Your task to perform on an android device: Clear the shopping cart on target.com. Search for asus rog on target.com, select the first entry, add it to the cart, then select checkout. Image 0: 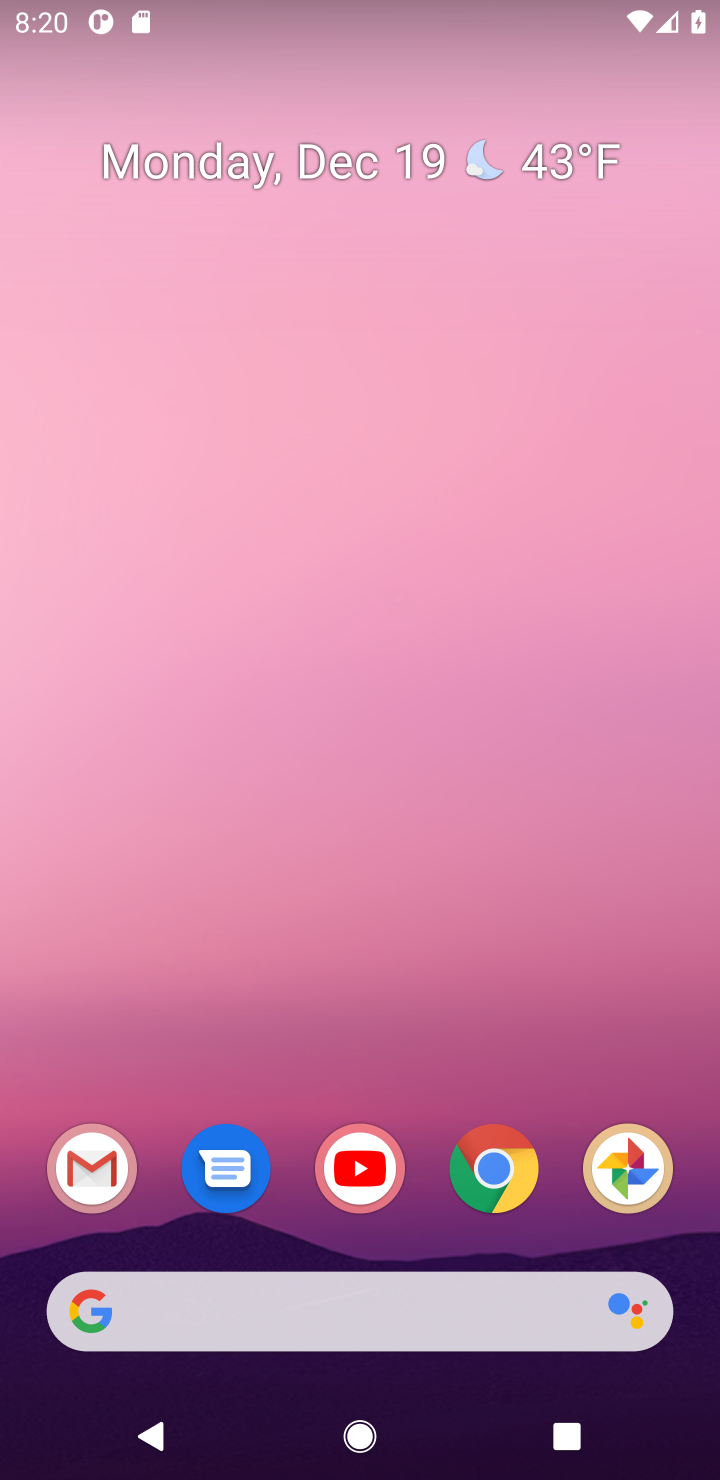
Step 0: click (494, 1181)
Your task to perform on an android device: Clear the shopping cart on target.com. Search for asus rog on target.com, select the first entry, add it to the cart, then select checkout. Image 1: 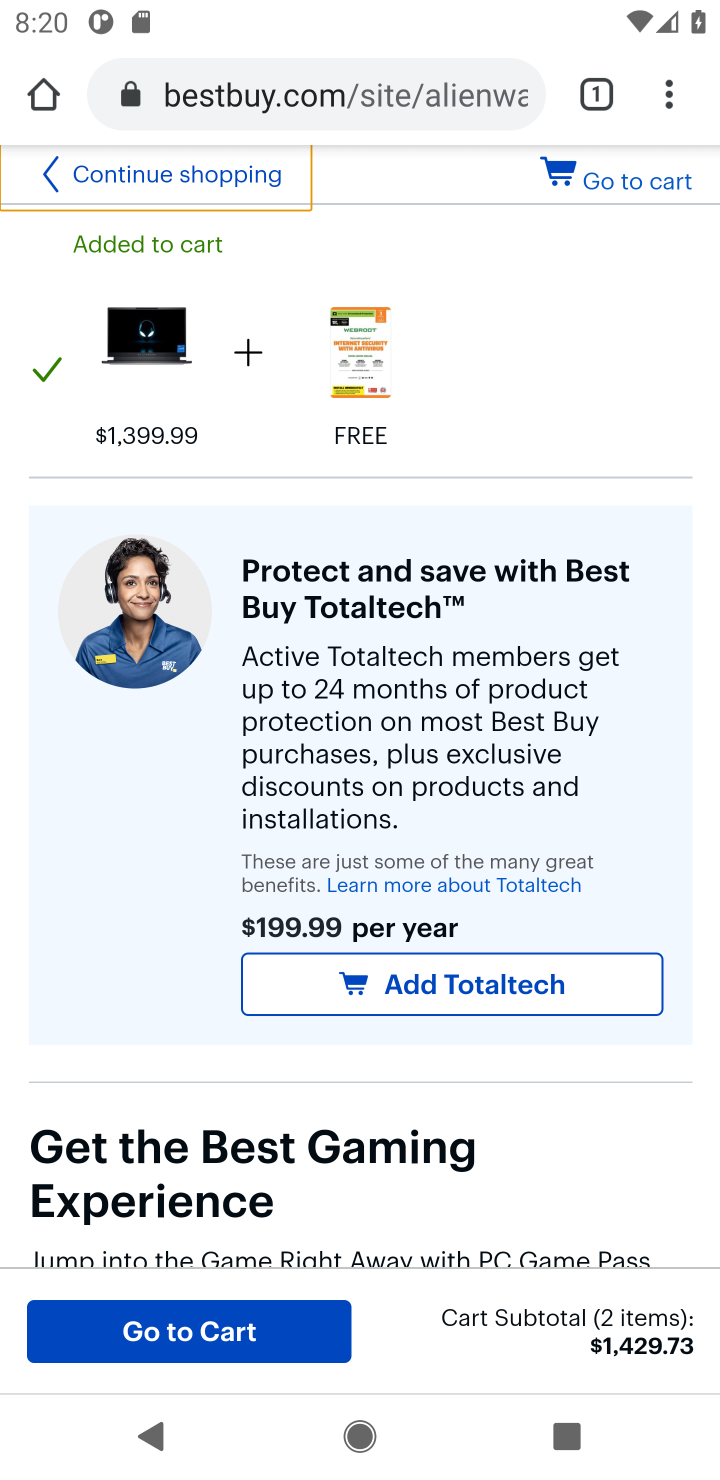
Step 1: click (263, 89)
Your task to perform on an android device: Clear the shopping cart on target.com. Search for asus rog on target.com, select the first entry, add it to the cart, then select checkout. Image 2: 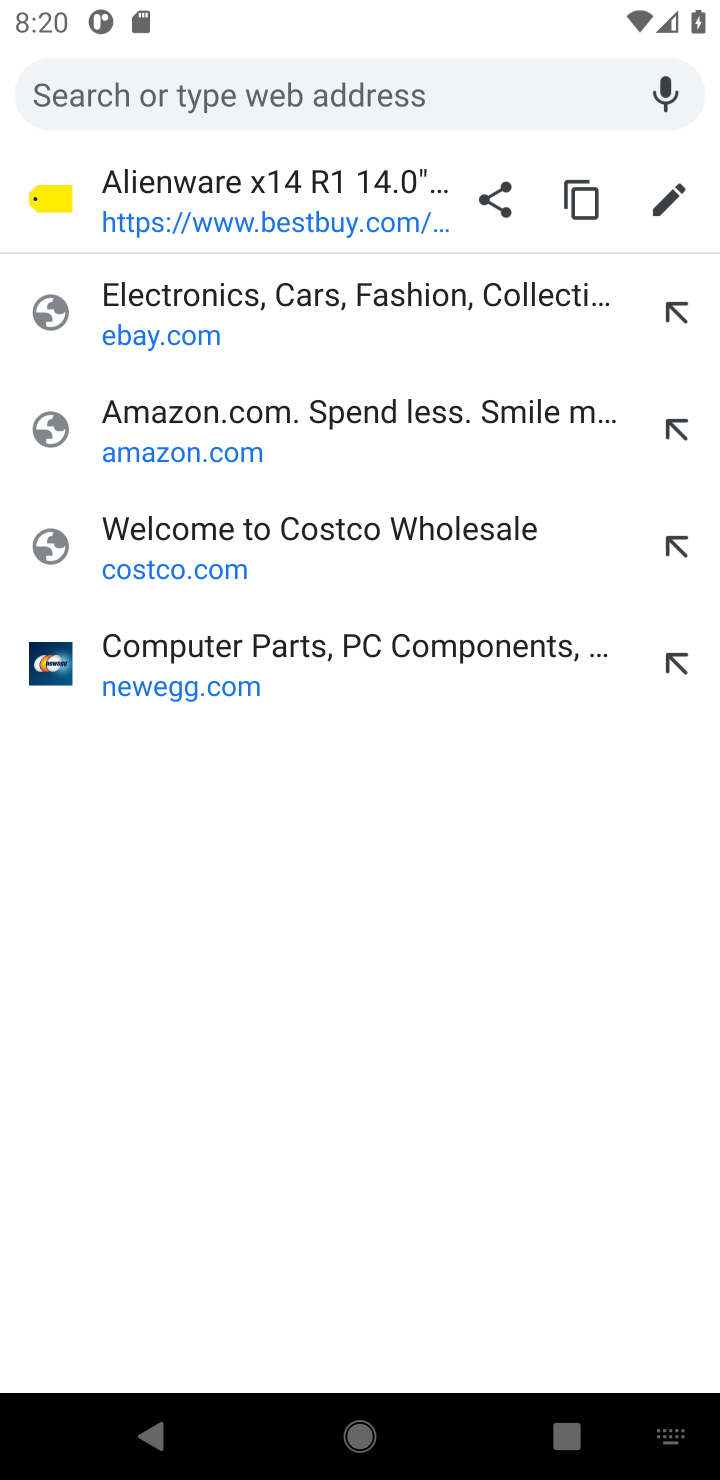
Step 2: type "target.com"
Your task to perform on an android device: Clear the shopping cart on target.com. Search for asus rog on target.com, select the first entry, add it to the cart, then select checkout. Image 3: 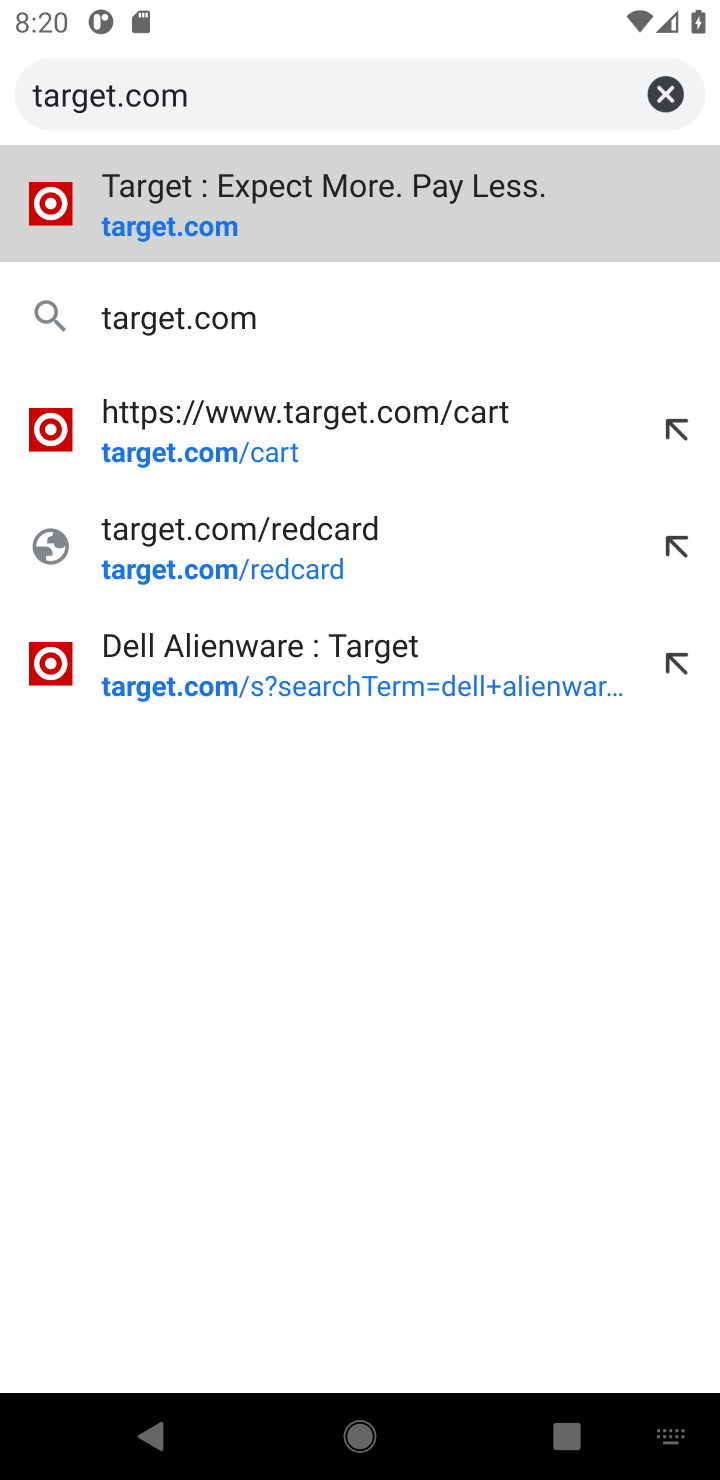
Step 3: click (180, 233)
Your task to perform on an android device: Clear the shopping cart on target.com. Search for asus rog on target.com, select the first entry, add it to the cart, then select checkout. Image 4: 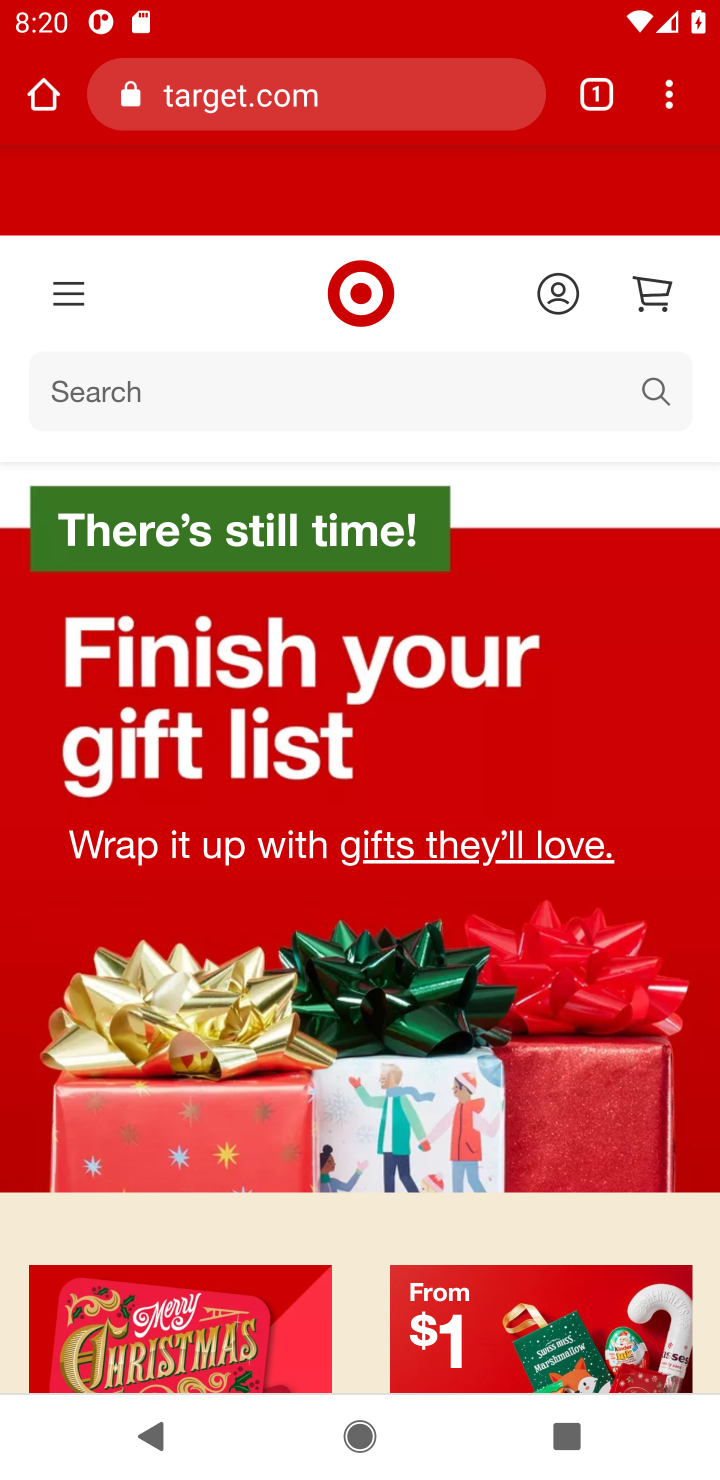
Step 4: click (643, 298)
Your task to perform on an android device: Clear the shopping cart on target.com. Search for asus rog on target.com, select the first entry, add it to the cart, then select checkout. Image 5: 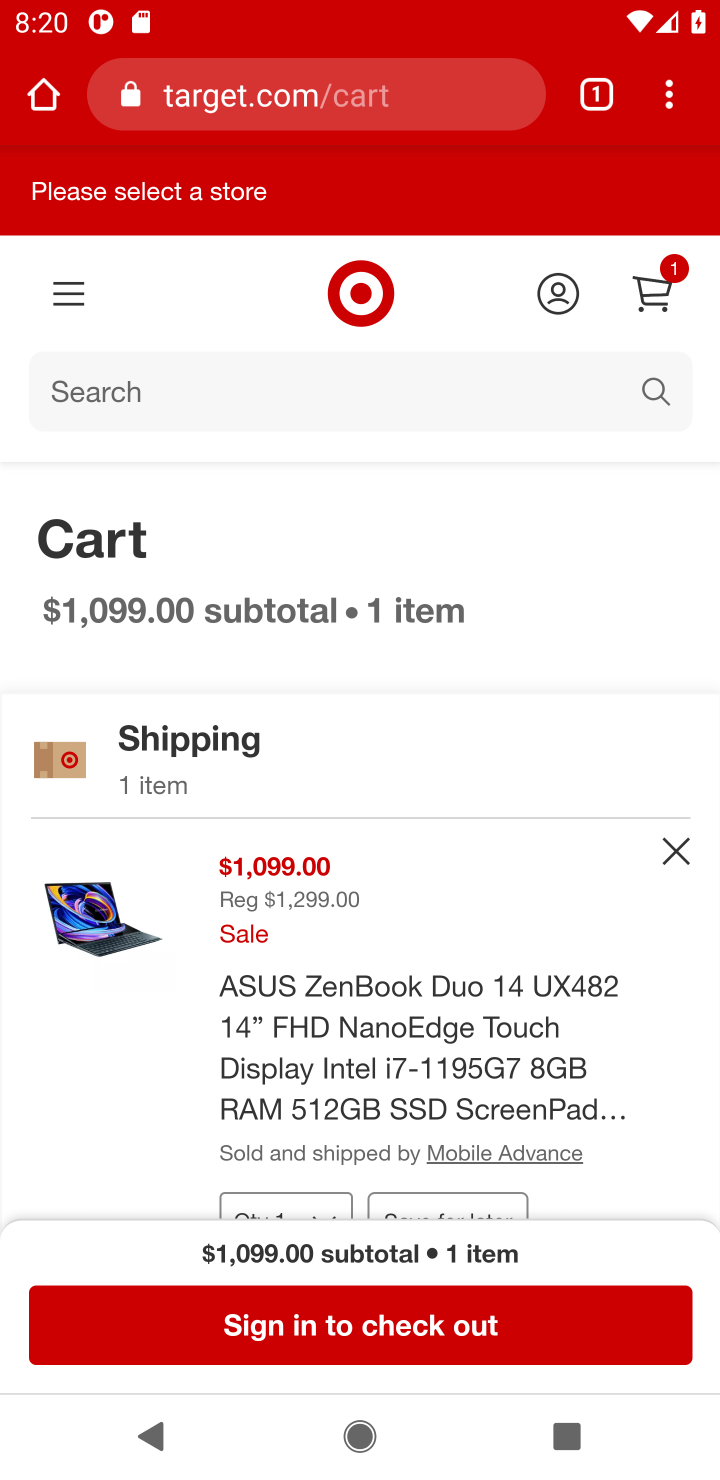
Step 5: click (677, 856)
Your task to perform on an android device: Clear the shopping cart on target.com. Search for asus rog on target.com, select the first entry, add it to the cart, then select checkout. Image 6: 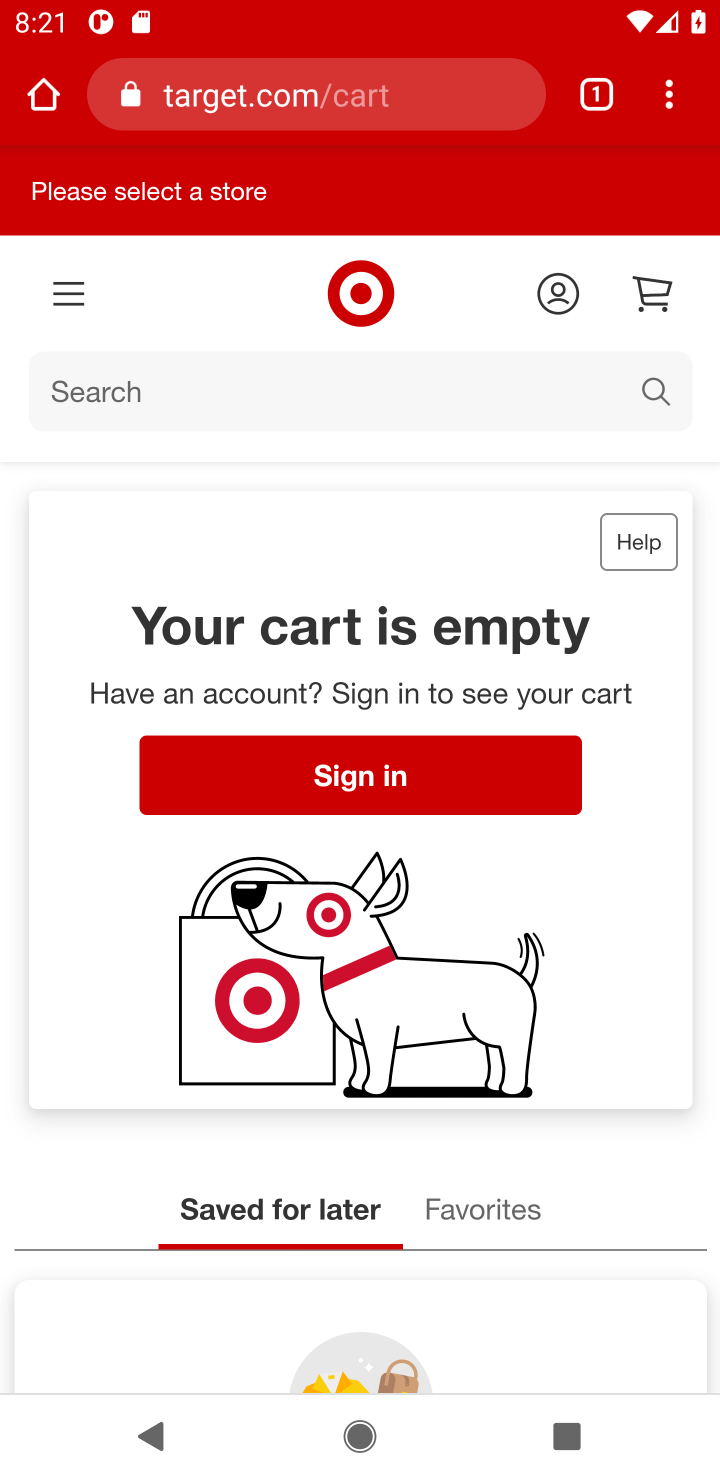
Step 6: click (79, 392)
Your task to perform on an android device: Clear the shopping cart on target.com. Search for asus rog on target.com, select the first entry, add it to the cart, then select checkout. Image 7: 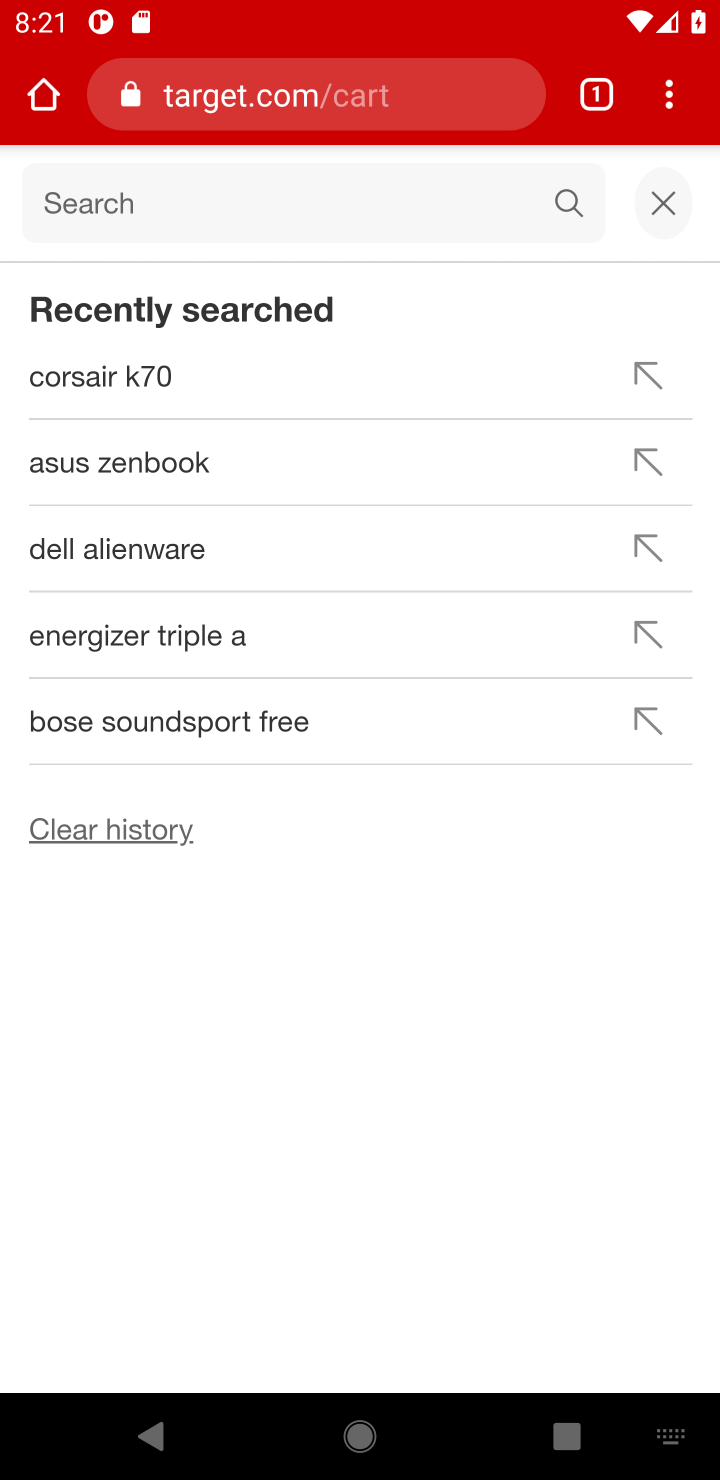
Step 7: type "asus rog"
Your task to perform on an android device: Clear the shopping cart on target.com. Search for asus rog on target.com, select the first entry, add it to the cart, then select checkout. Image 8: 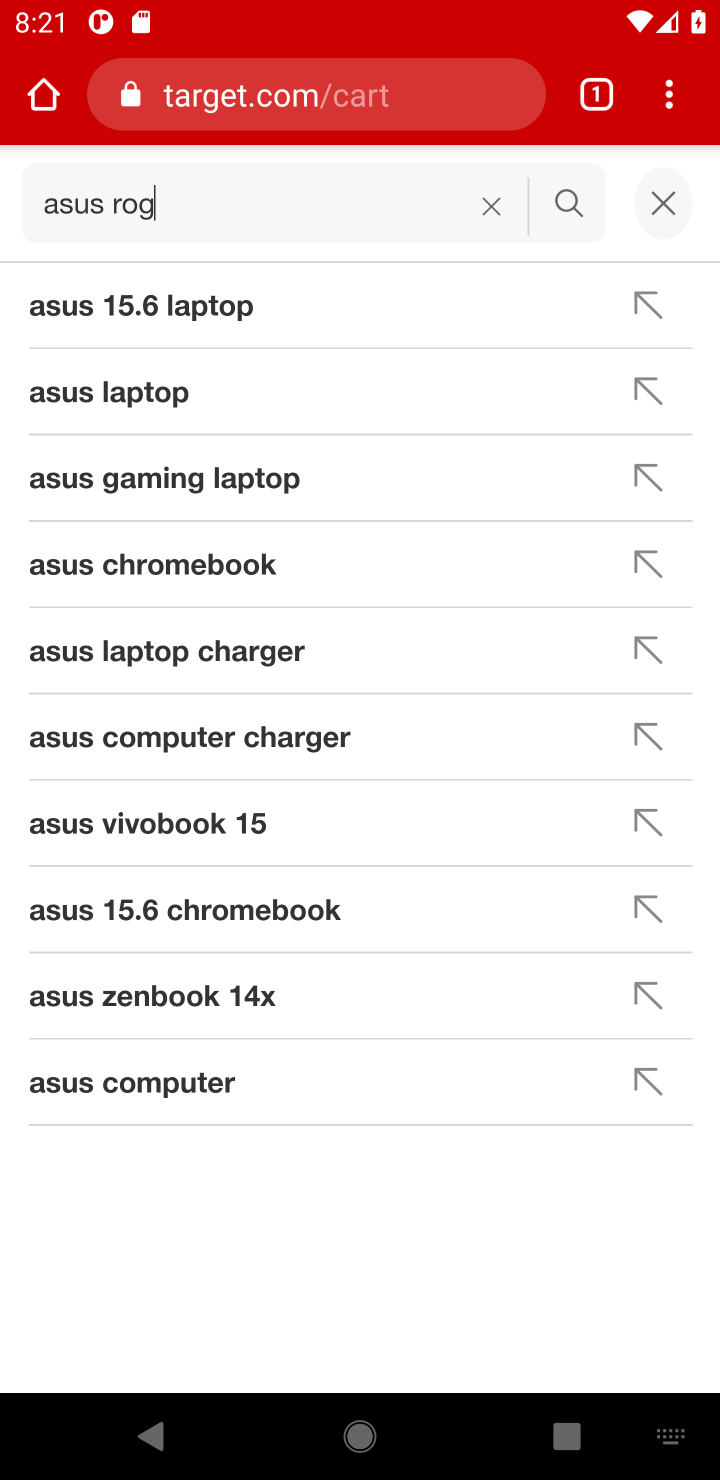
Step 8: click (564, 211)
Your task to perform on an android device: Clear the shopping cart on target.com. Search for asus rog on target.com, select the first entry, add it to the cart, then select checkout. Image 9: 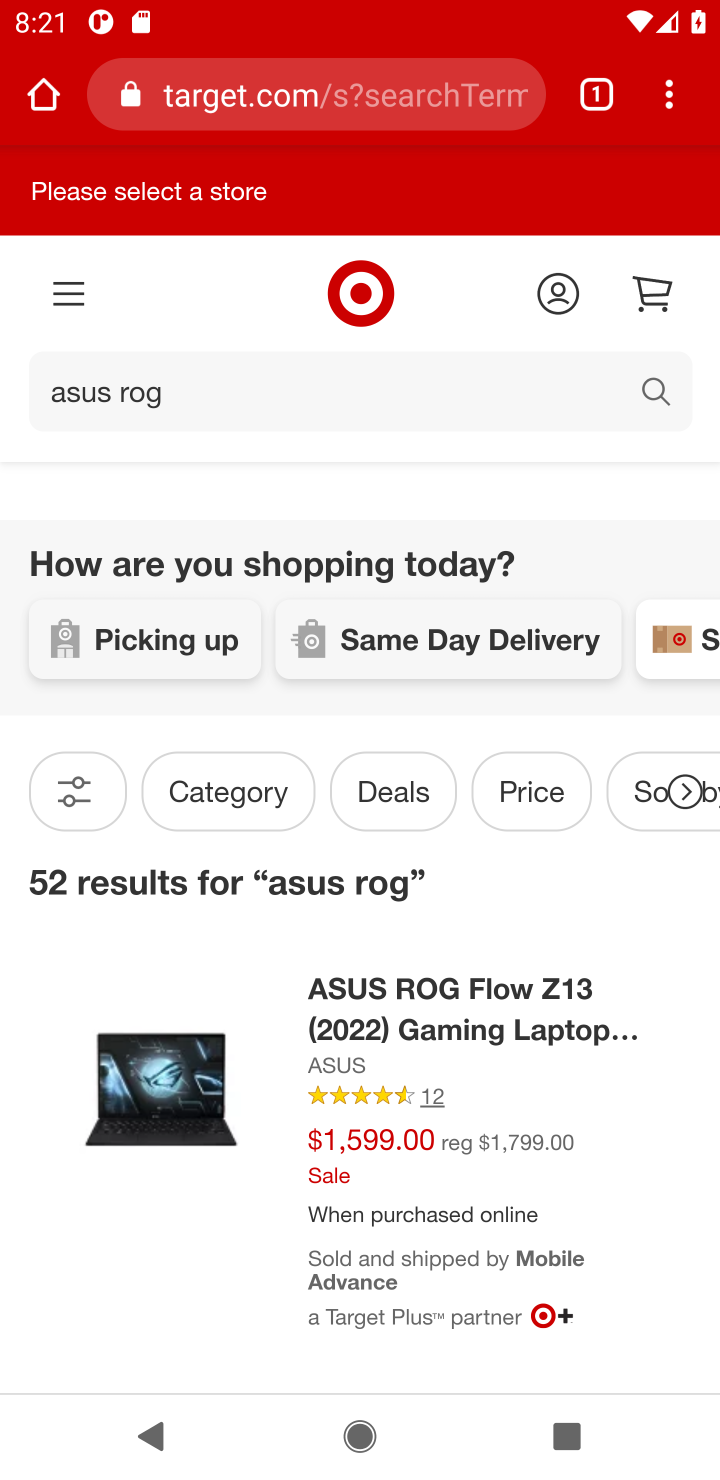
Step 9: drag from (307, 1068) to (299, 653)
Your task to perform on an android device: Clear the shopping cart on target.com. Search for asus rog on target.com, select the first entry, add it to the cart, then select checkout. Image 10: 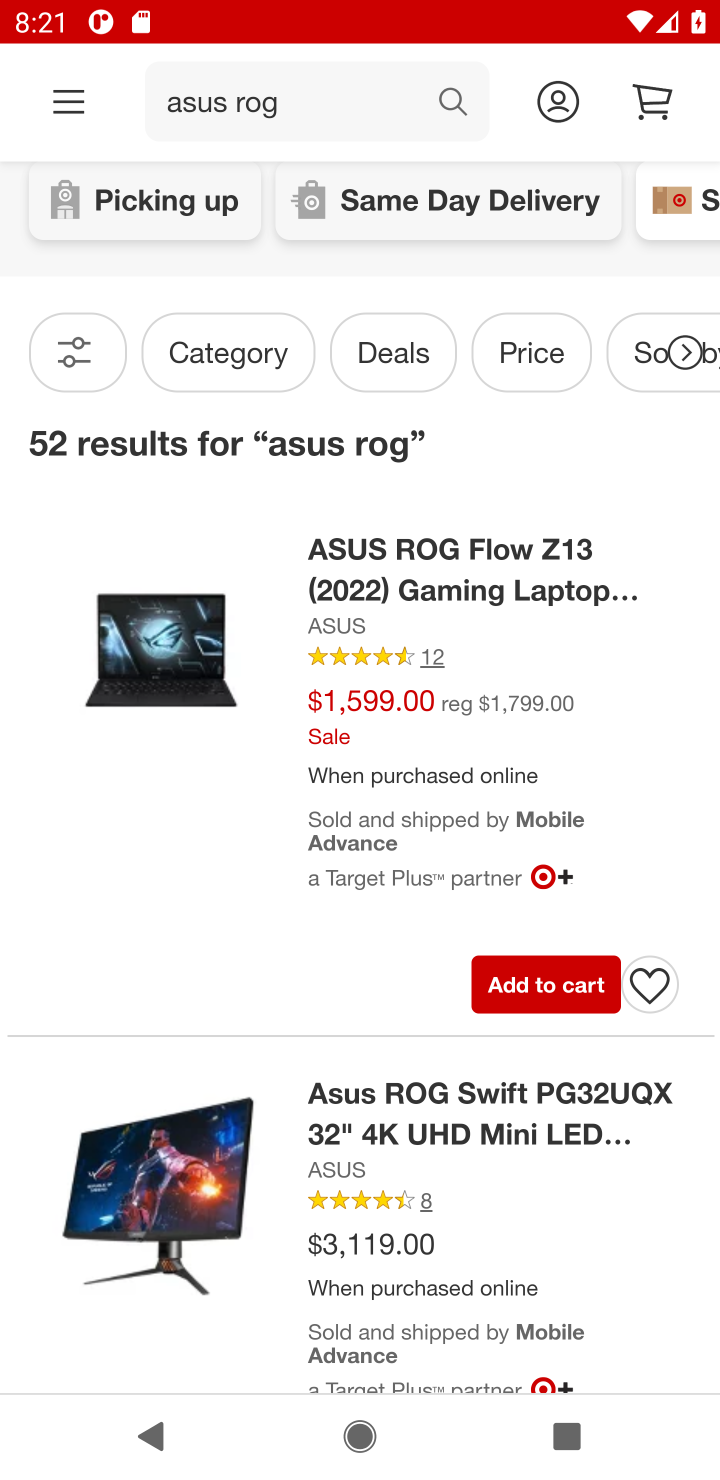
Step 10: click (540, 995)
Your task to perform on an android device: Clear the shopping cart on target.com. Search for asus rog on target.com, select the first entry, add it to the cart, then select checkout. Image 11: 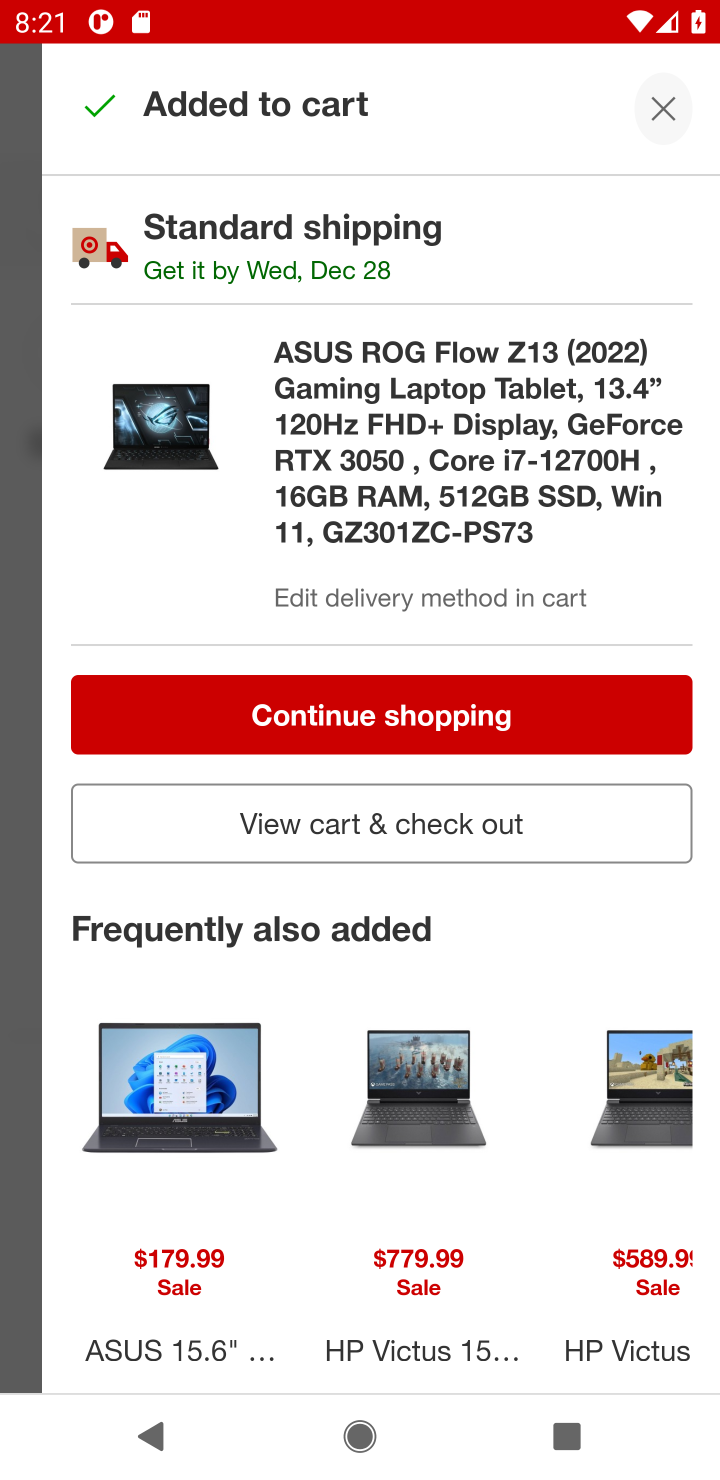
Step 11: click (426, 846)
Your task to perform on an android device: Clear the shopping cart on target.com. Search for asus rog on target.com, select the first entry, add it to the cart, then select checkout. Image 12: 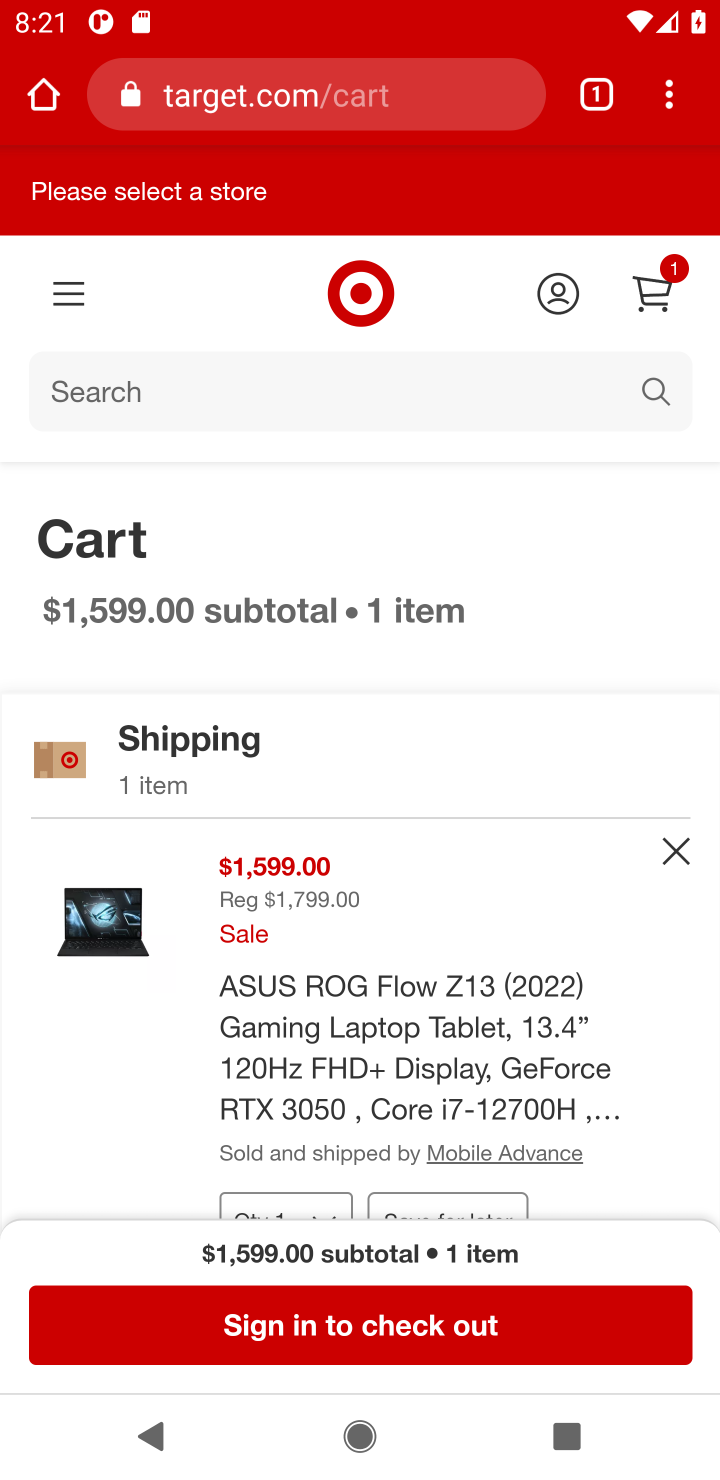
Step 12: click (375, 1320)
Your task to perform on an android device: Clear the shopping cart on target.com. Search for asus rog on target.com, select the first entry, add it to the cart, then select checkout. Image 13: 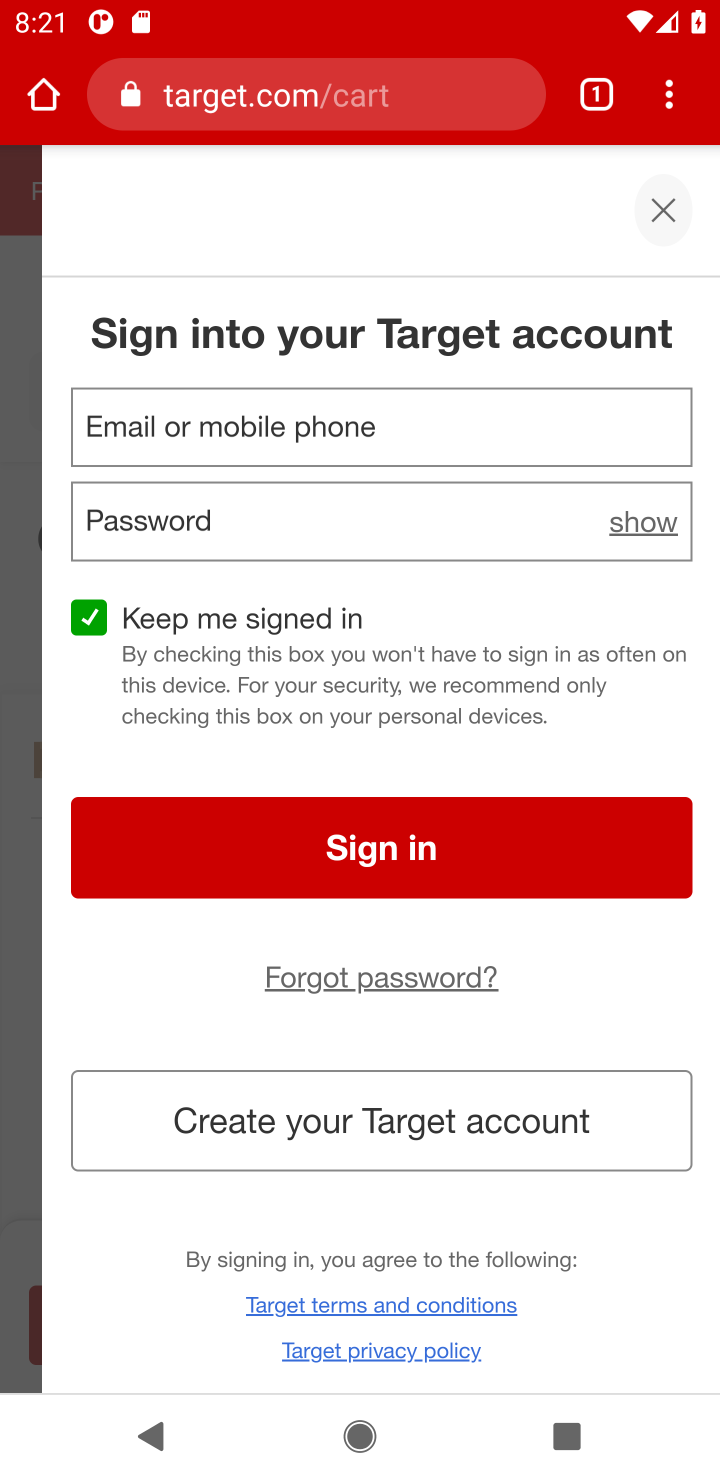
Step 13: task complete